Your task to perform on an android device: change notification settings in the gmail app Image 0: 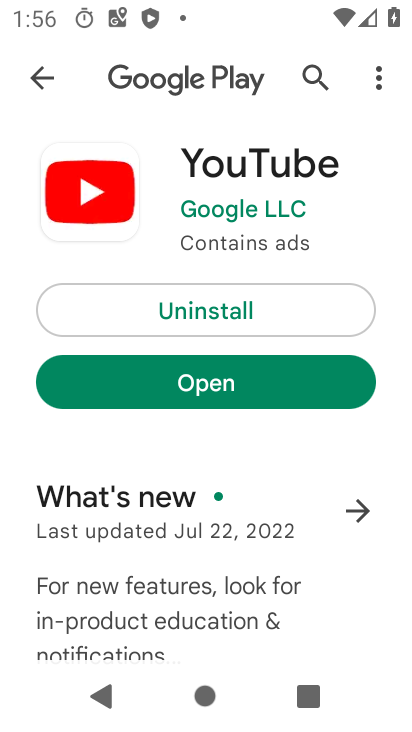
Step 0: press back button
Your task to perform on an android device: change notification settings in the gmail app Image 1: 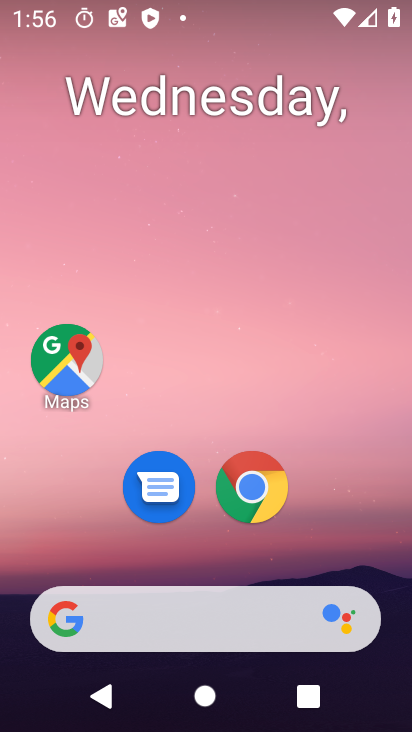
Step 1: drag from (183, 559) to (324, 4)
Your task to perform on an android device: change notification settings in the gmail app Image 2: 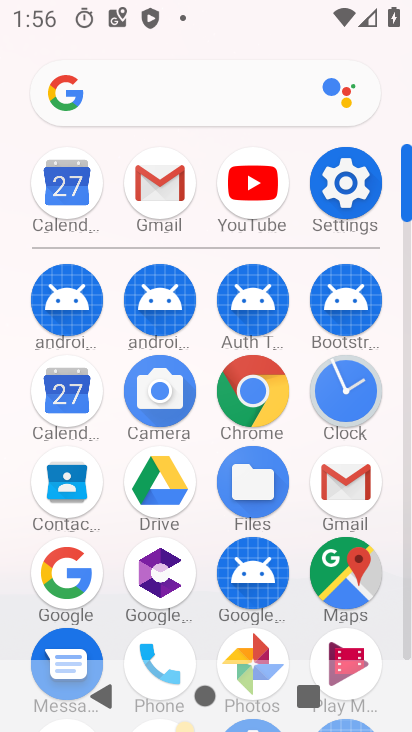
Step 2: click (157, 179)
Your task to perform on an android device: change notification settings in the gmail app Image 3: 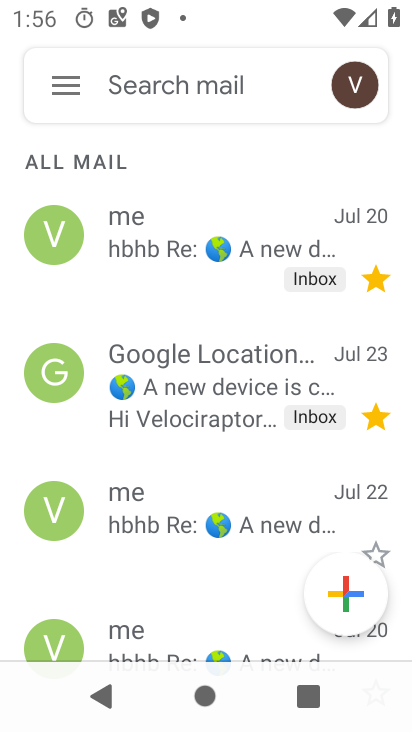
Step 3: click (69, 78)
Your task to perform on an android device: change notification settings in the gmail app Image 4: 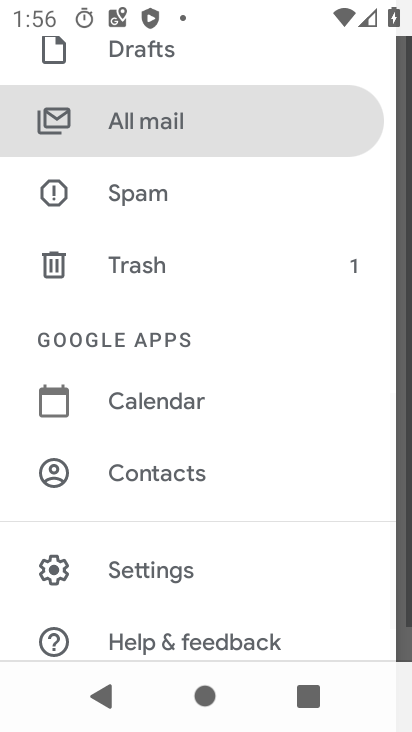
Step 4: click (164, 563)
Your task to perform on an android device: change notification settings in the gmail app Image 5: 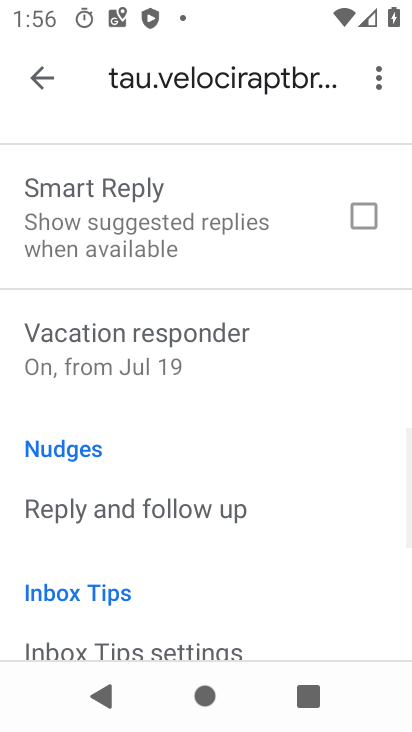
Step 5: drag from (225, 165) to (225, 635)
Your task to perform on an android device: change notification settings in the gmail app Image 6: 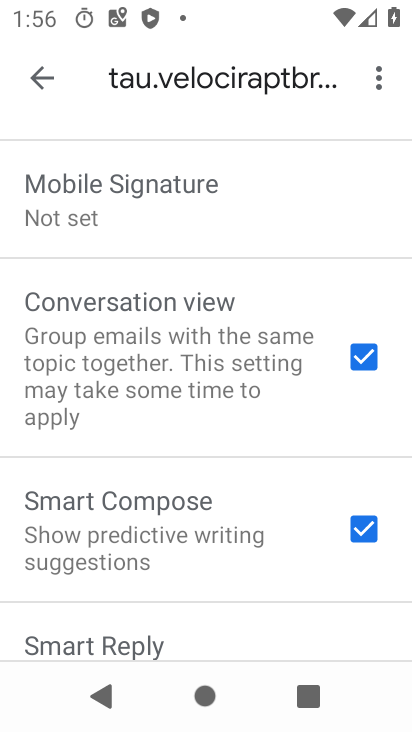
Step 6: drag from (214, 202) to (210, 711)
Your task to perform on an android device: change notification settings in the gmail app Image 7: 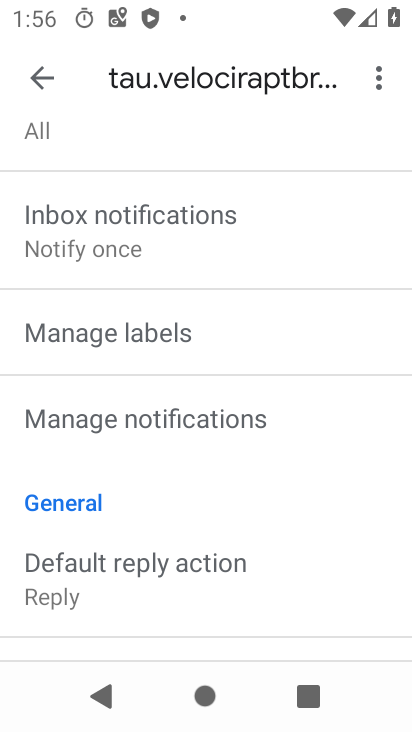
Step 7: click (80, 424)
Your task to perform on an android device: change notification settings in the gmail app Image 8: 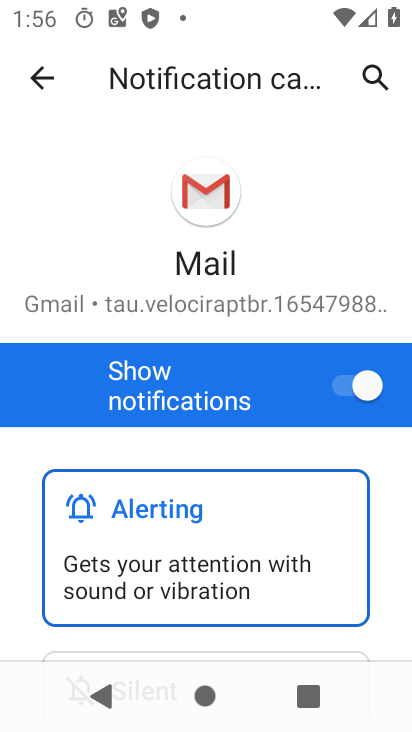
Step 8: drag from (267, 560) to (323, 93)
Your task to perform on an android device: change notification settings in the gmail app Image 9: 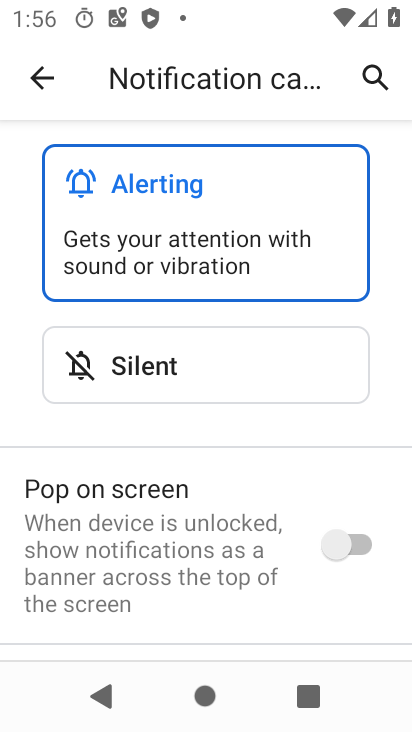
Step 9: click (335, 549)
Your task to perform on an android device: change notification settings in the gmail app Image 10: 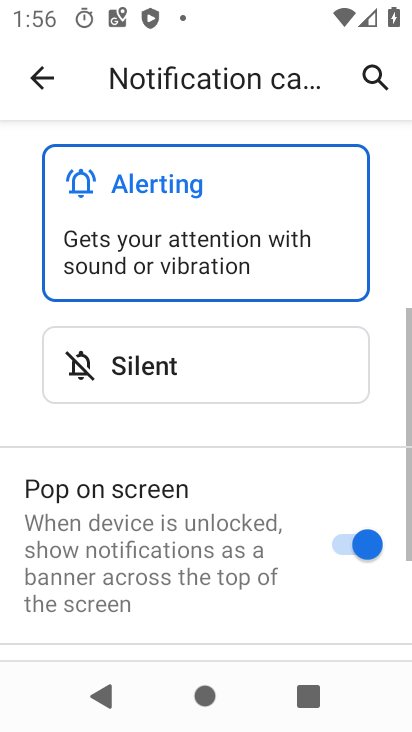
Step 10: task complete